Your task to perform on an android device: open app "Google Drive" Image 0: 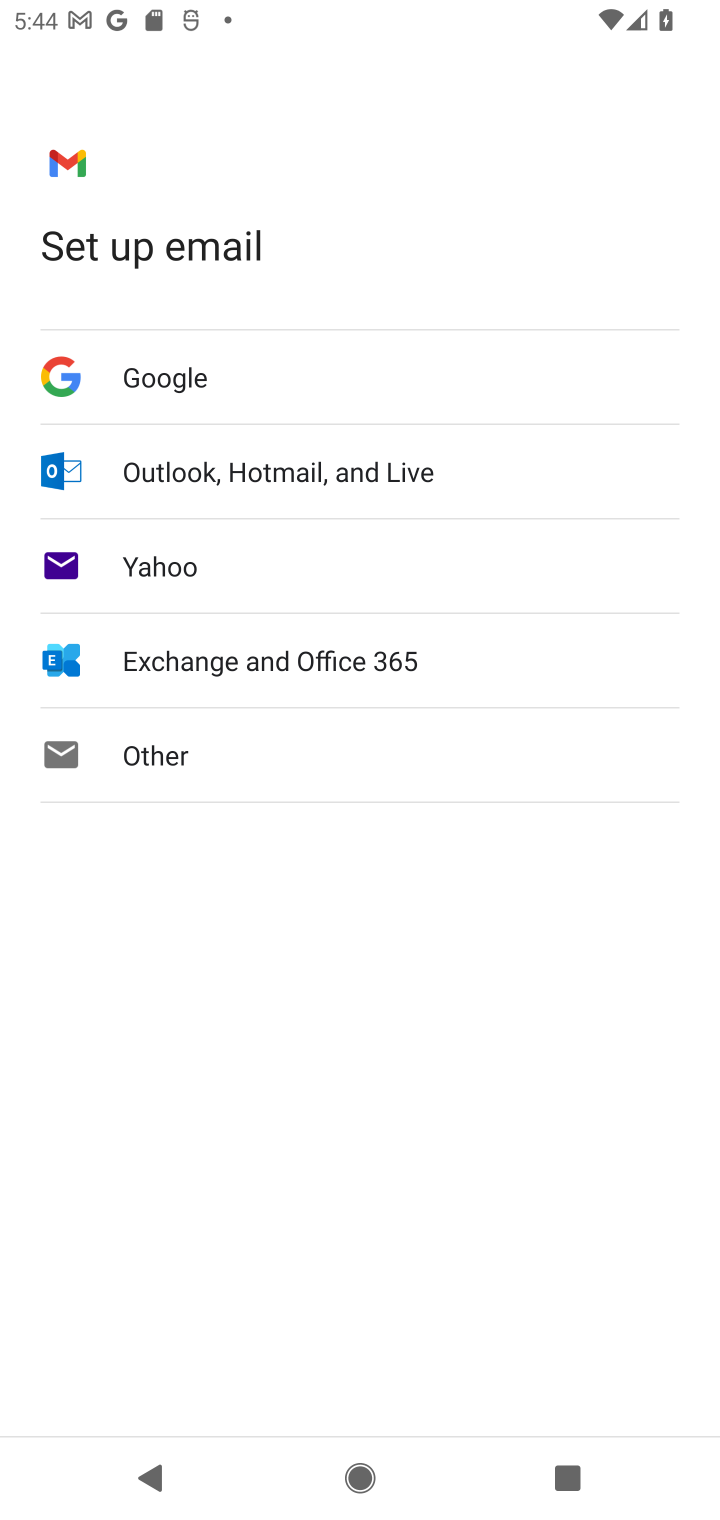
Step 0: press home button
Your task to perform on an android device: open app "Google Drive" Image 1: 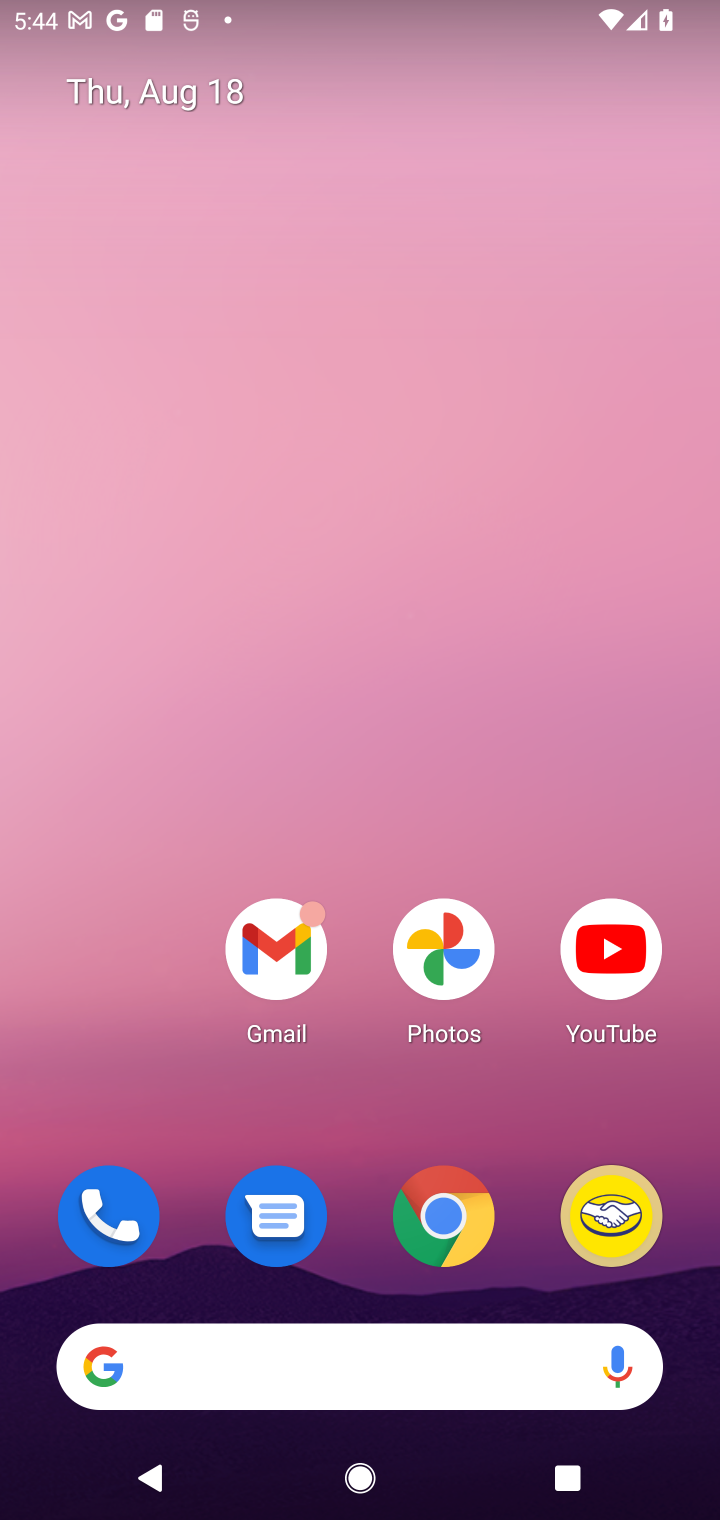
Step 1: drag from (529, 1182) to (571, 265)
Your task to perform on an android device: open app "Google Drive" Image 2: 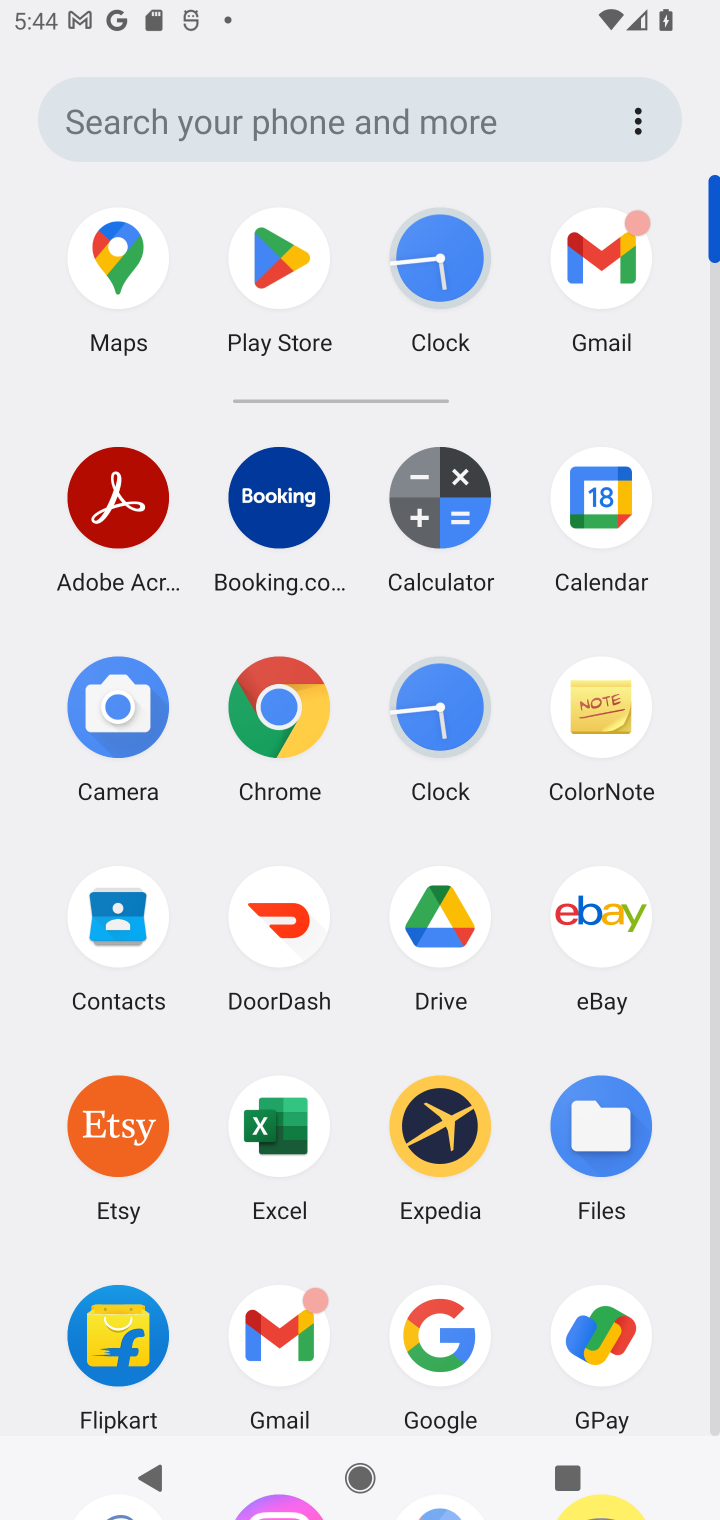
Step 2: drag from (689, 1408) to (679, 544)
Your task to perform on an android device: open app "Google Drive" Image 3: 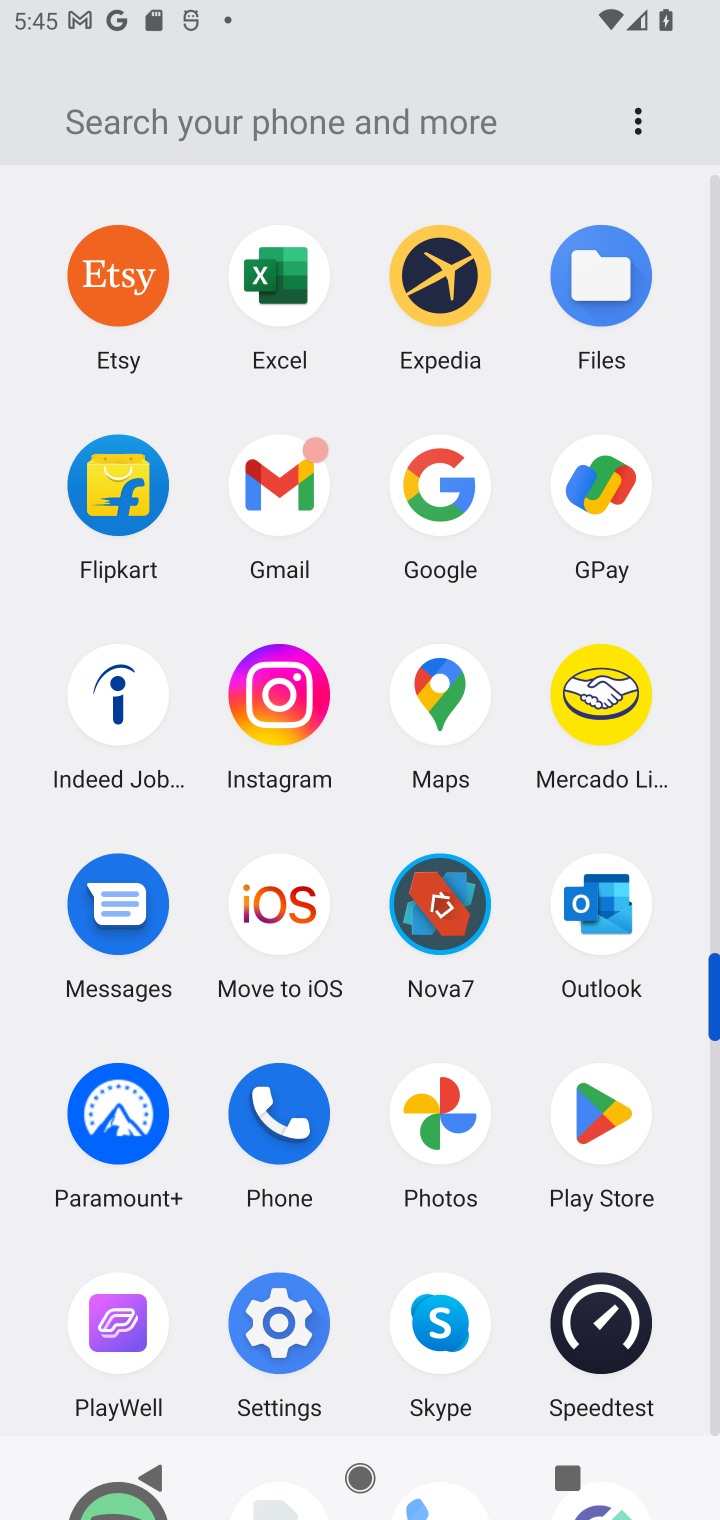
Step 3: click (604, 1111)
Your task to perform on an android device: open app "Google Drive" Image 4: 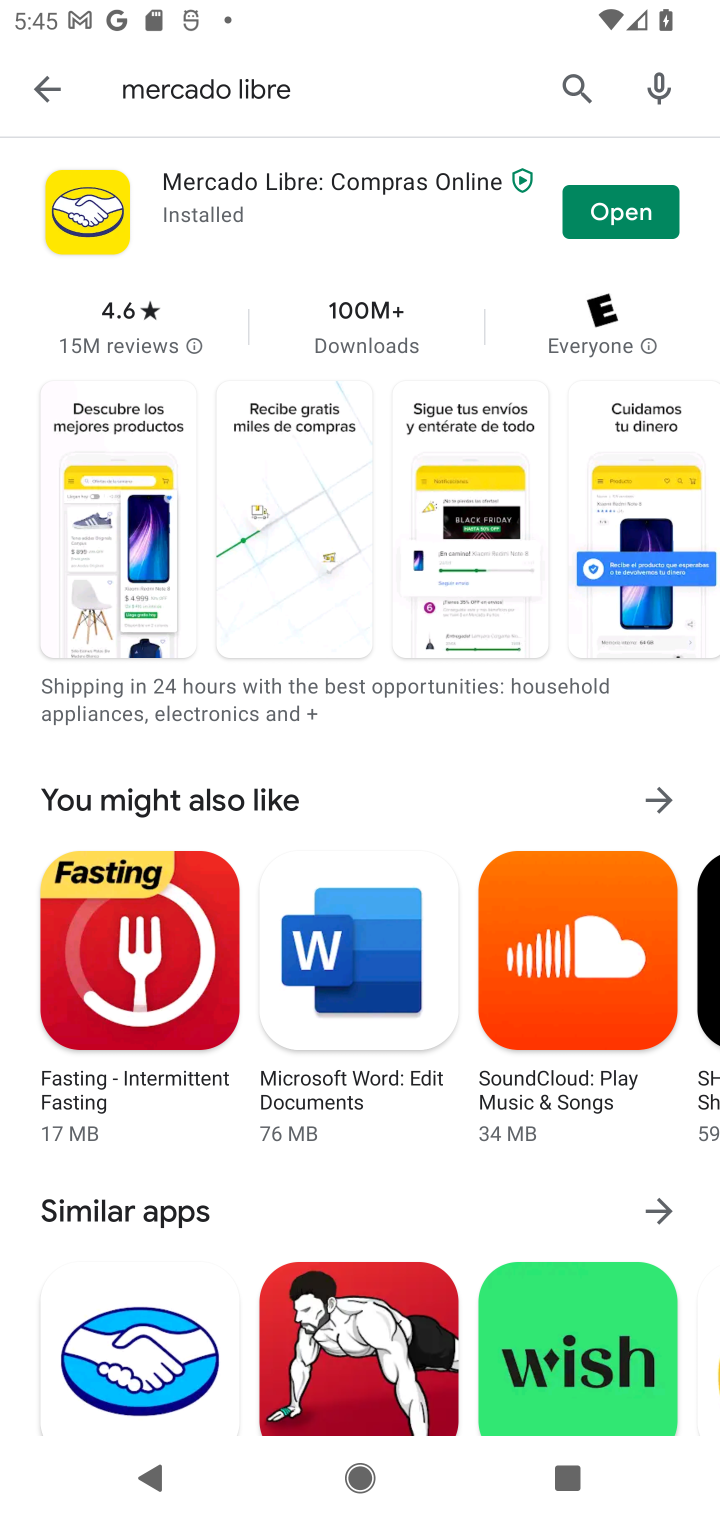
Step 4: click (571, 82)
Your task to perform on an android device: open app "Google Drive" Image 5: 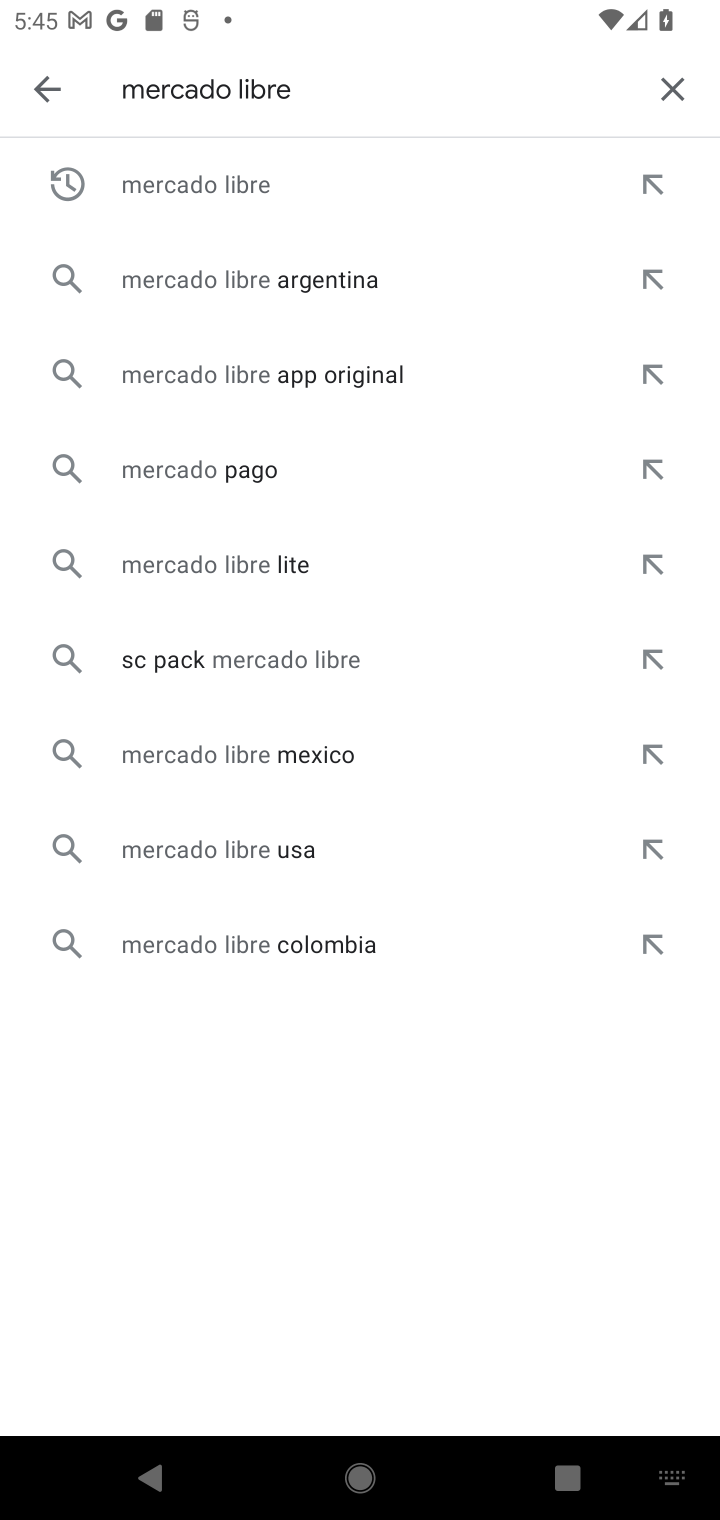
Step 5: click (665, 82)
Your task to perform on an android device: open app "Google Drive" Image 6: 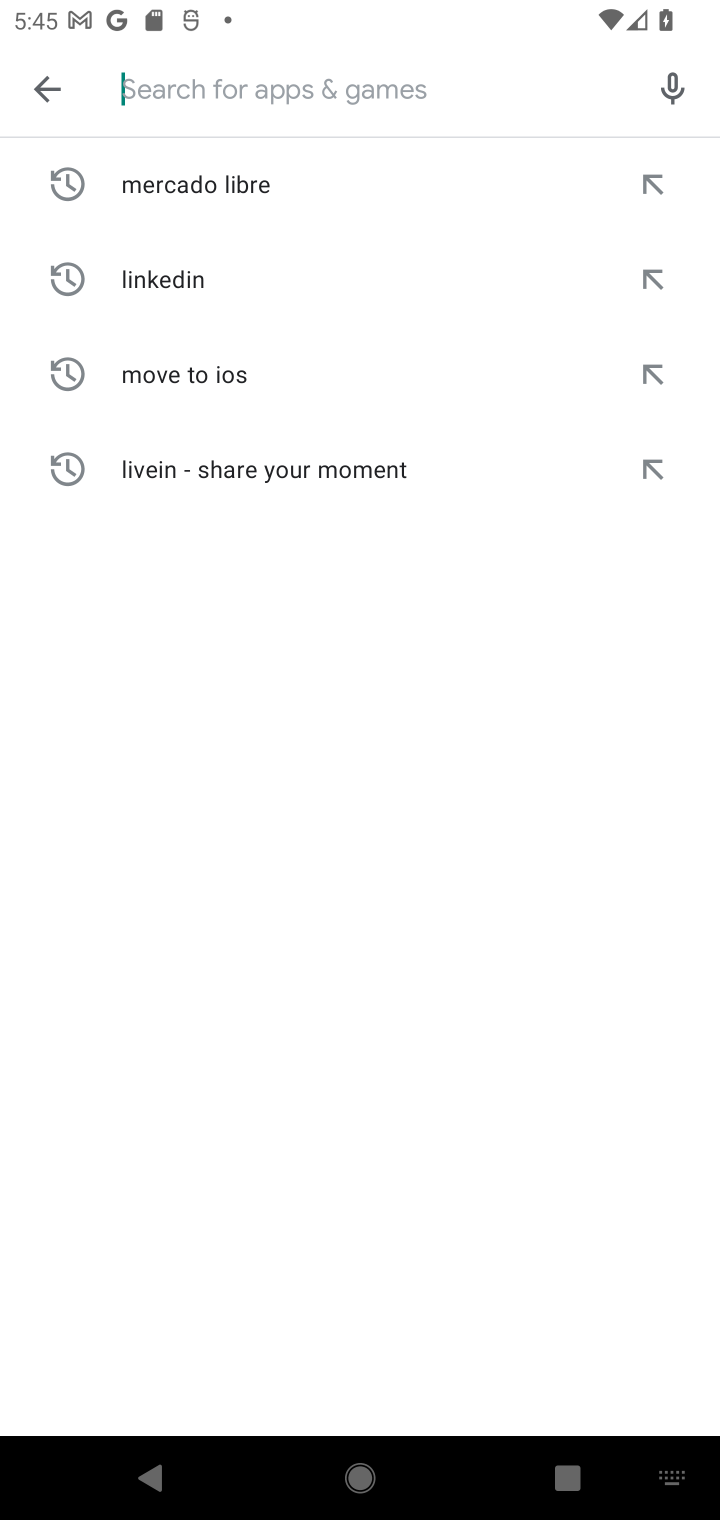
Step 6: type "Google Drive"
Your task to perform on an android device: open app "Google Drive" Image 7: 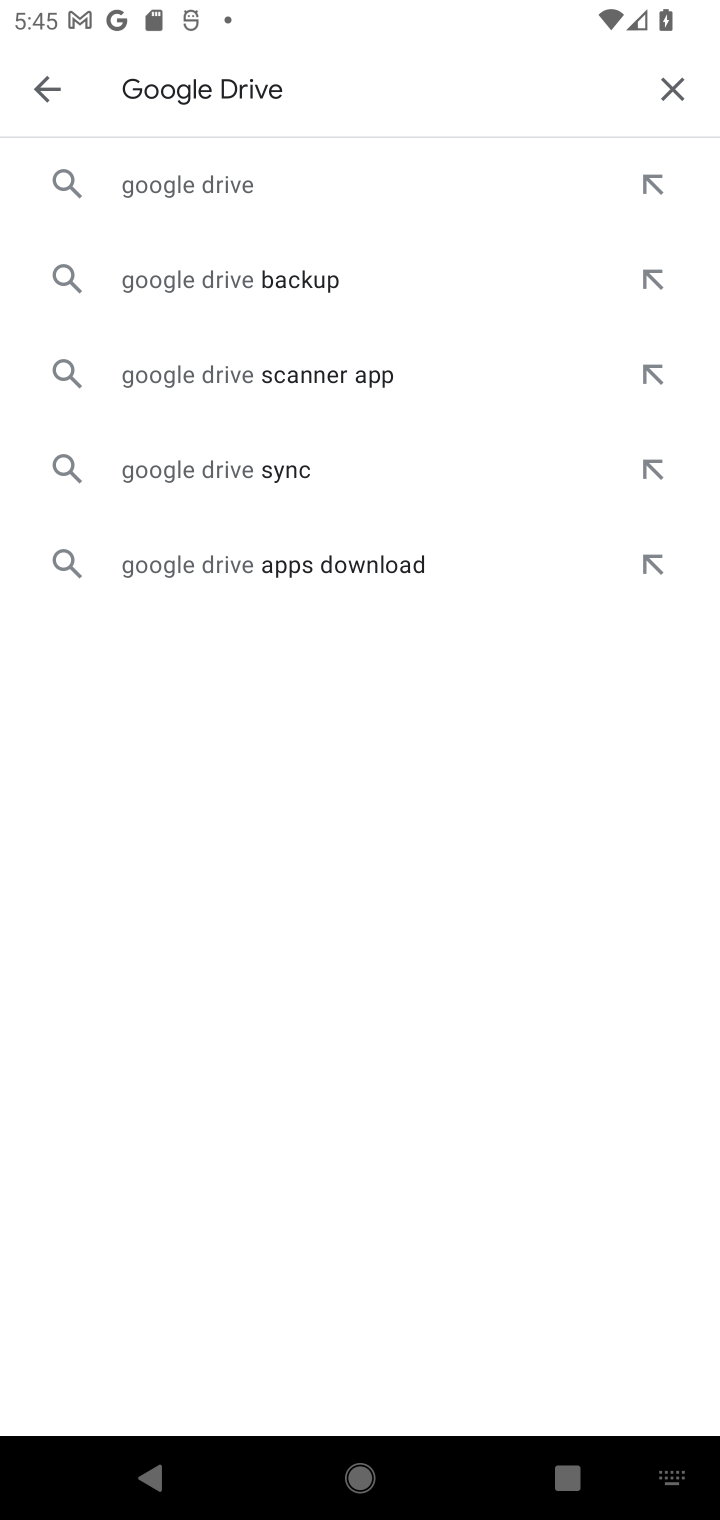
Step 7: click (170, 168)
Your task to perform on an android device: open app "Google Drive" Image 8: 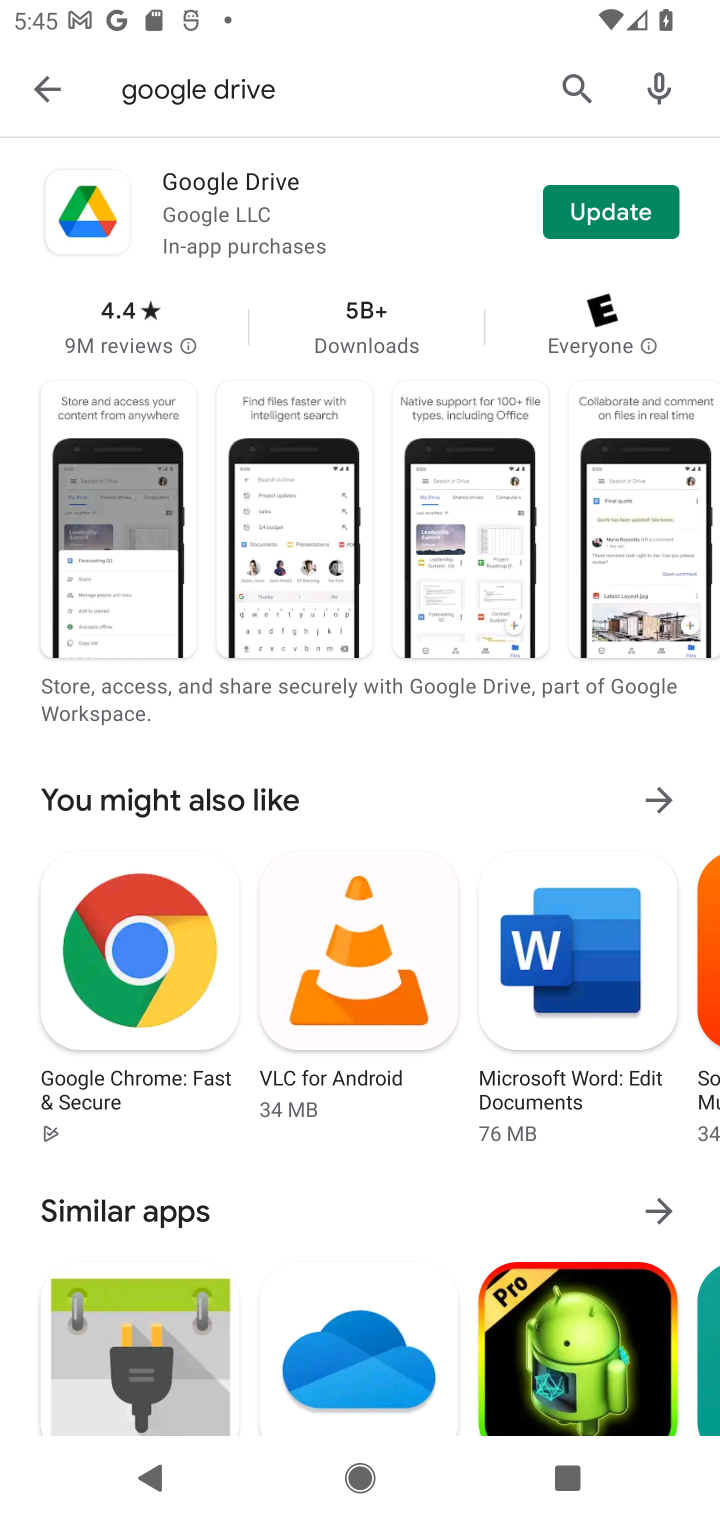
Step 8: task complete